Your task to perform on an android device: Go to eBay Image 0: 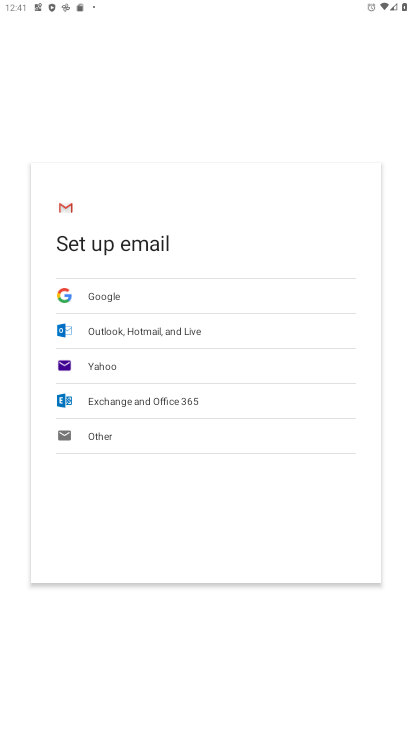
Step 0: press home button
Your task to perform on an android device: Go to eBay Image 1: 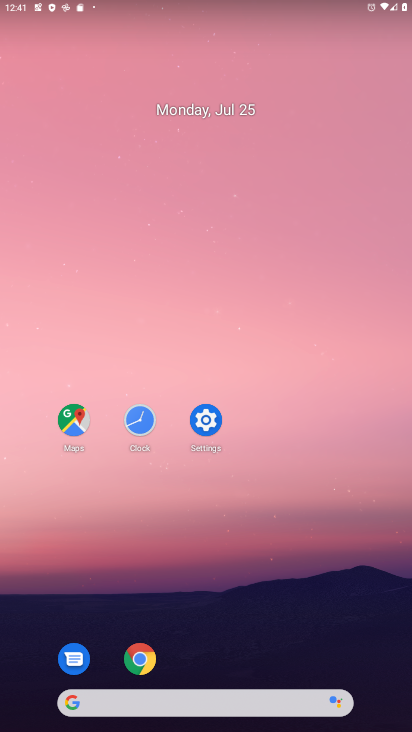
Step 1: drag from (383, 665) to (392, 154)
Your task to perform on an android device: Go to eBay Image 2: 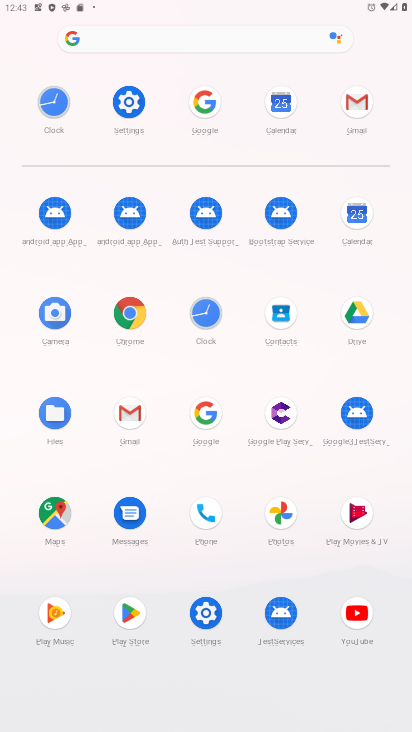
Step 2: click (126, 319)
Your task to perform on an android device: Go to eBay Image 3: 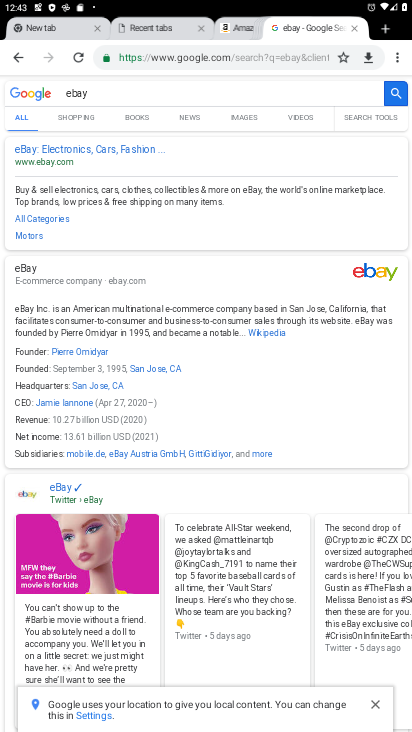
Step 3: click (295, 50)
Your task to perform on an android device: Go to eBay Image 4: 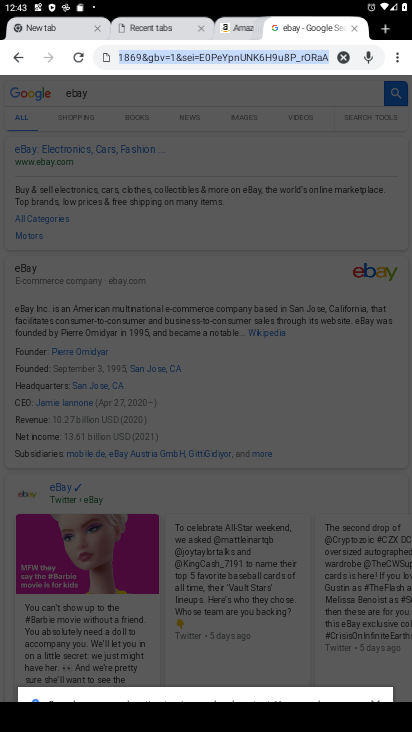
Step 4: click (339, 57)
Your task to perform on an android device: Go to eBay Image 5: 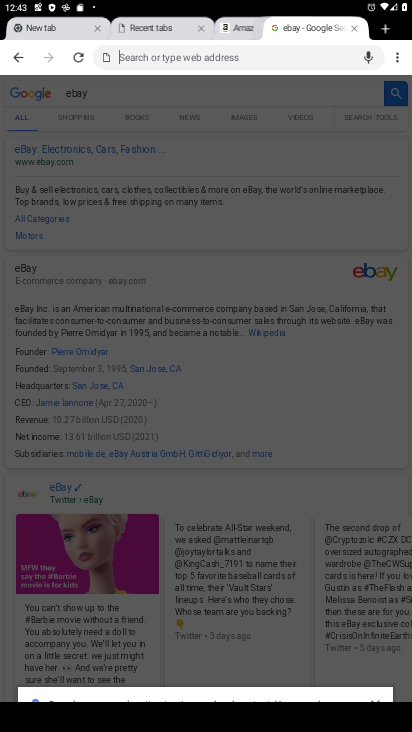
Step 5: type " eBay"
Your task to perform on an android device: Go to eBay Image 6: 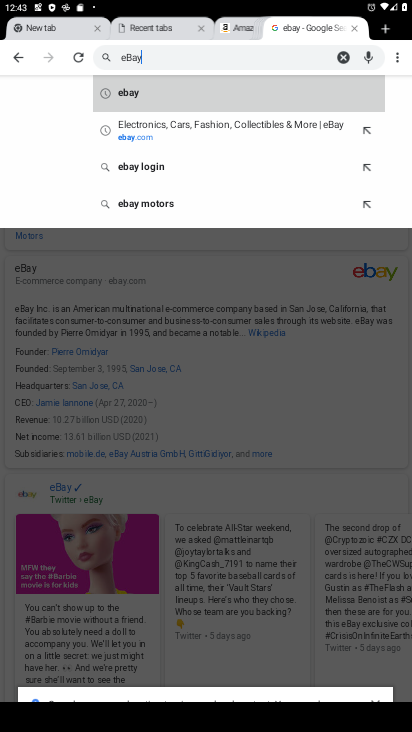
Step 6: click (144, 93)
Your task to perform on an android device: Go to eBay Image 7: 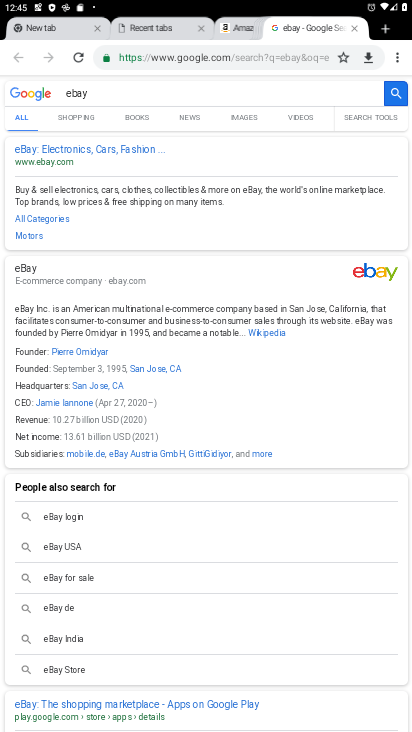
Step 7: task complete